Your task to perform on an android device: Show the shopping cart on newegg. Add "bose quietcomfort 35" to the cart on newegg Image 0: 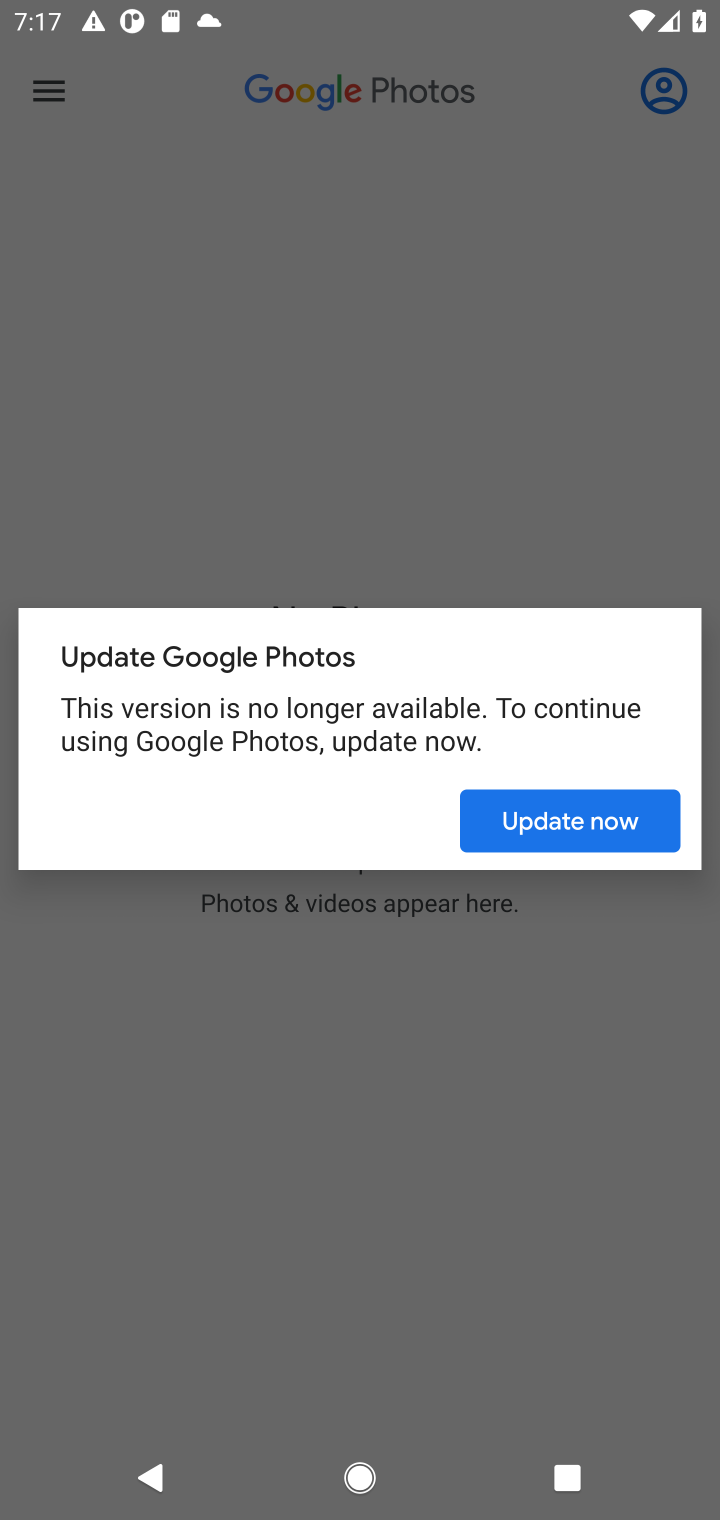
Step 0: press home button
Your task to perform on an android device: Show the shopping cart on newegg. Add "bose quietcomfort 35" to the cart on newegg Image 1: 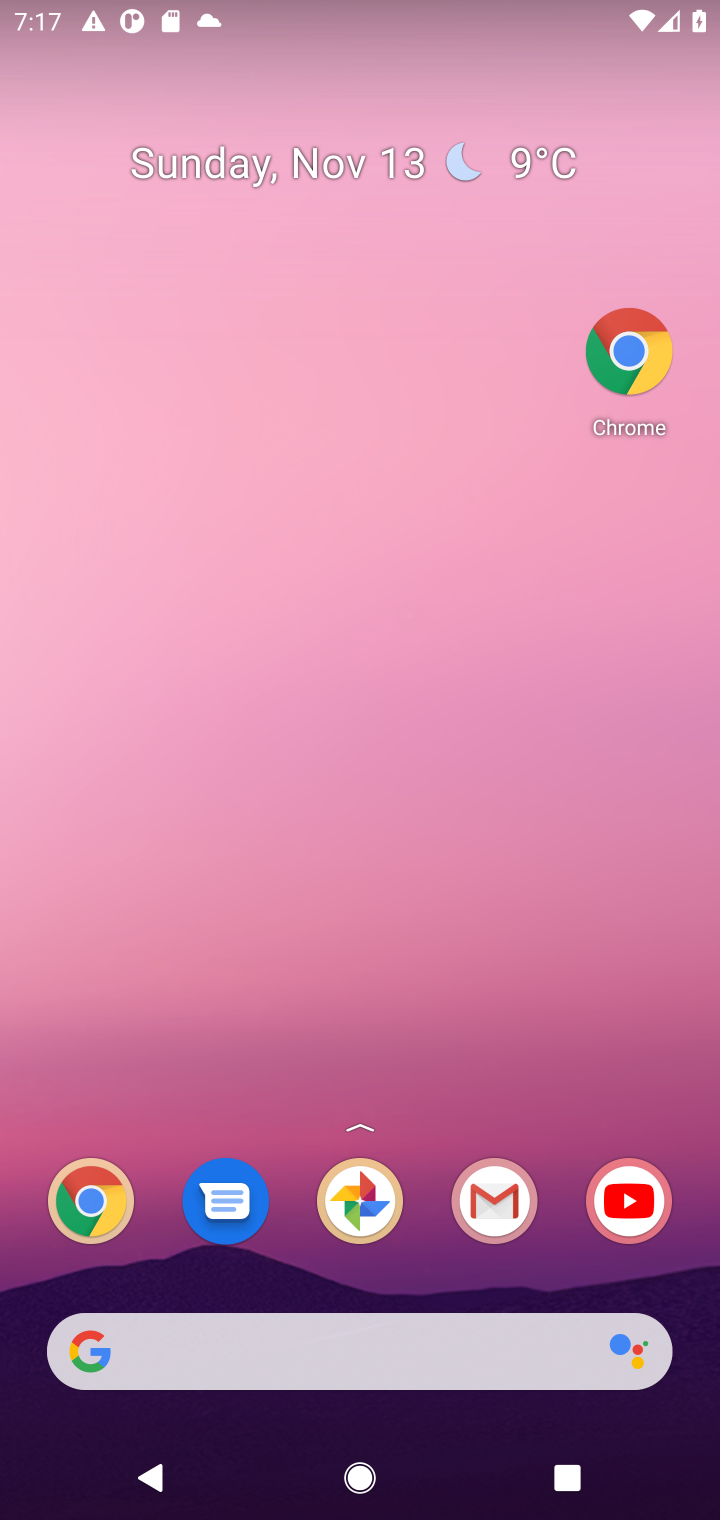
Step 1: drag from (458, 1312) to (287, 253)
Your task to perform on an android device: Show the shopping cart on newegg. Add "bose quietcomfort 35" to the cart on newegg Image 2: 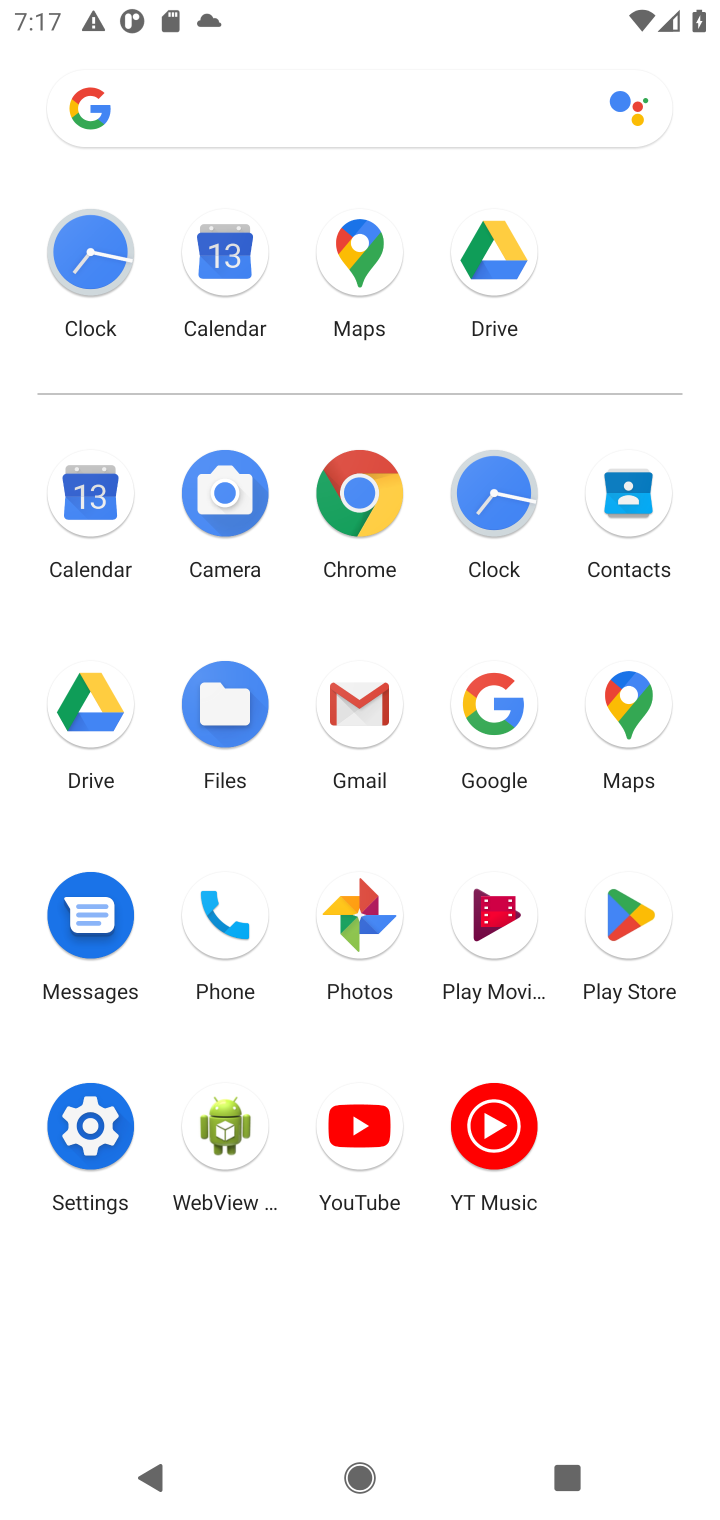
Step 2: click (363, 480)
Your task to perform on an android device: Show the shopping cart on newegg. Add "bose quietcomfort 35" to the cart on newegg Image 3: 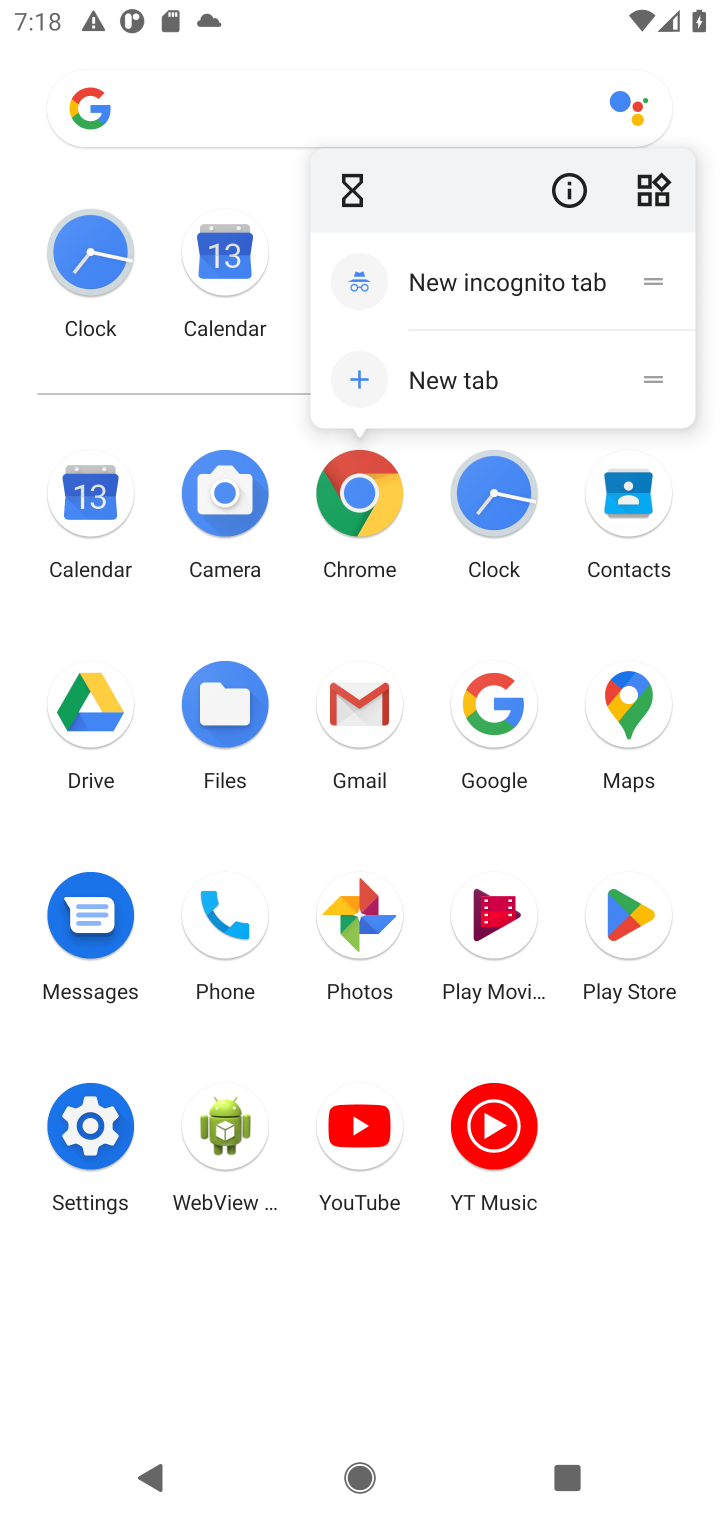
Step 3: click (377, 494)
Your task to perform on an android device: Show the shopping cart on newegg. Add "bose quietcomfort 35" to the cart on newegg Image 4: 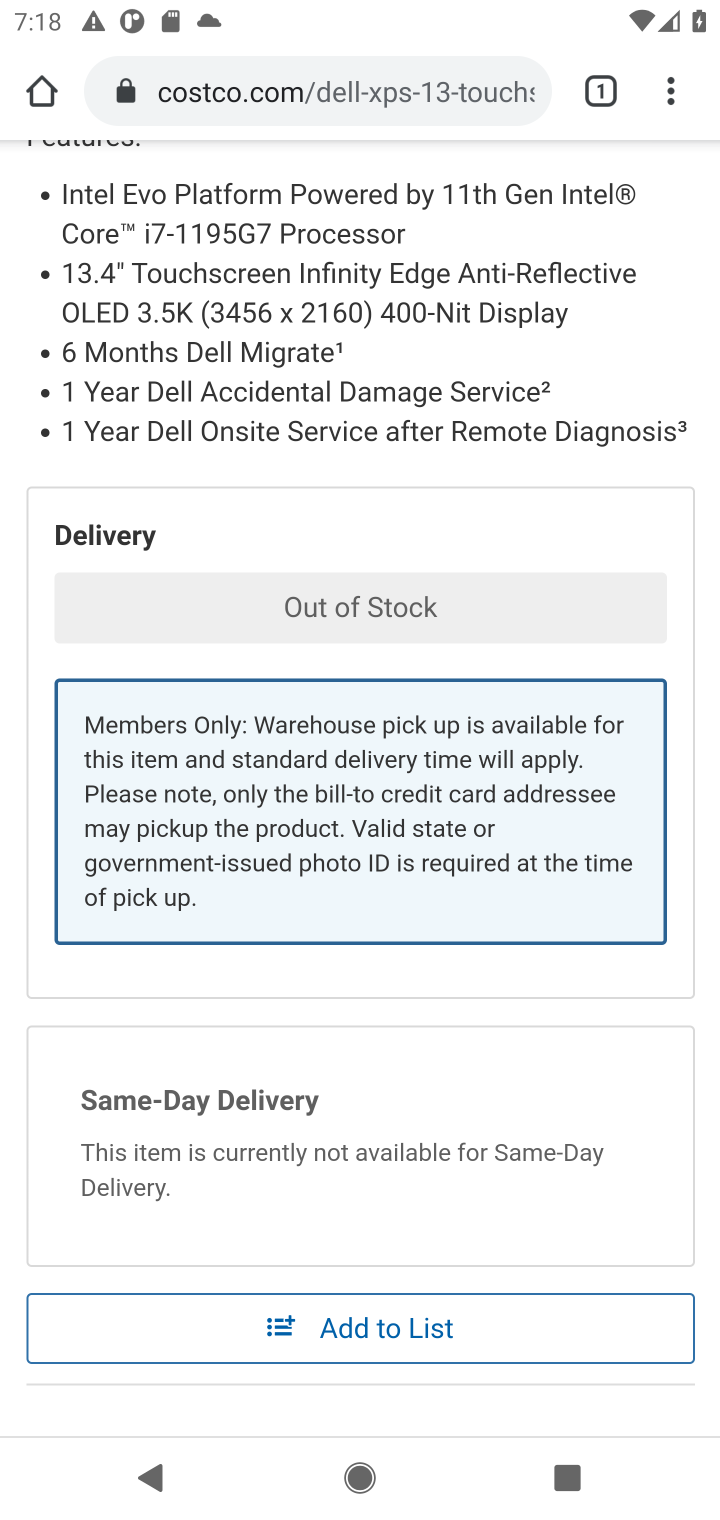
Step 4: click (411, 98)
Your task to perform on an android device: Show the shopping cart on newegg. Add "bose quietcomfort 35" to the cart on newegg Image 5: 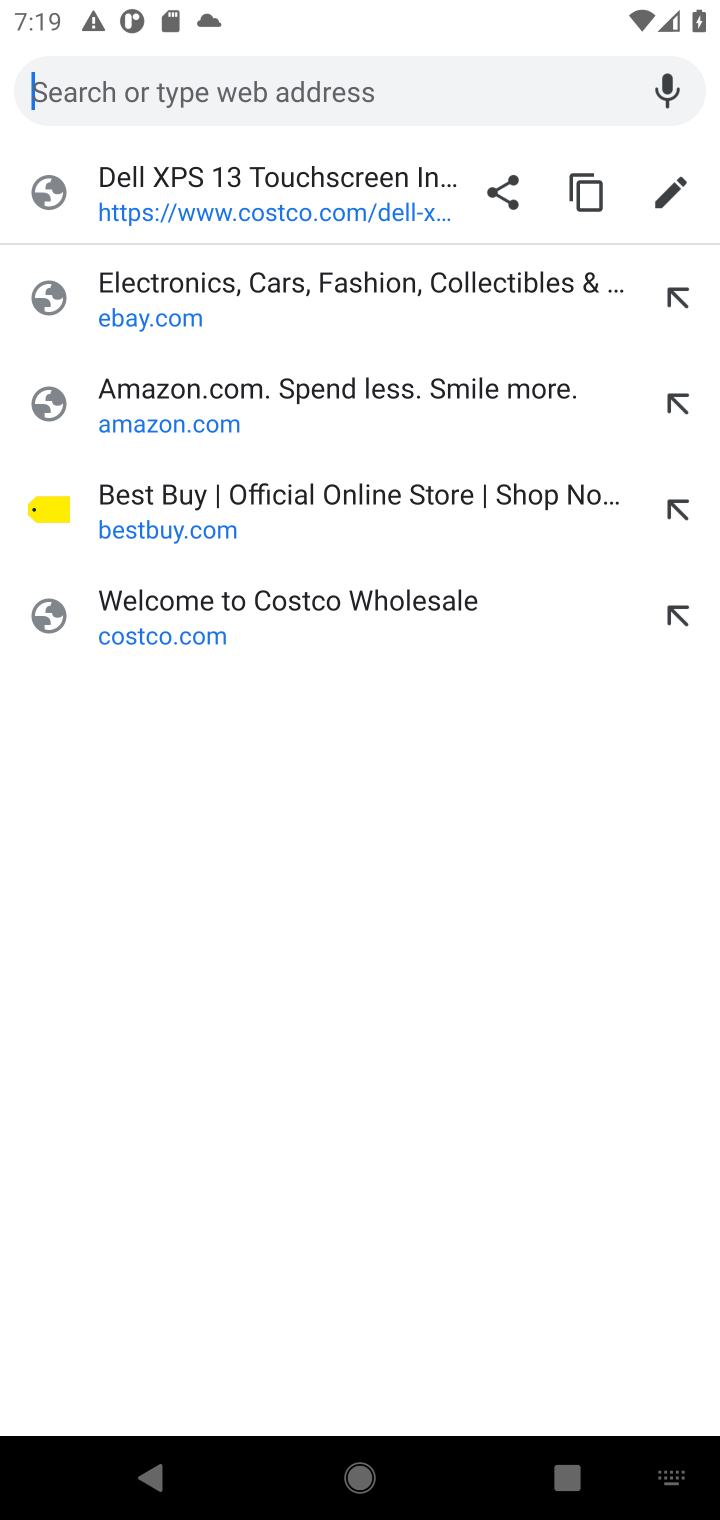
Step 5: type "newegg.com"
Your task to perform on an android device: Show the shopping cart on newegg. Add "bose quietcomfort 35" to the cart on newegg Image 6: 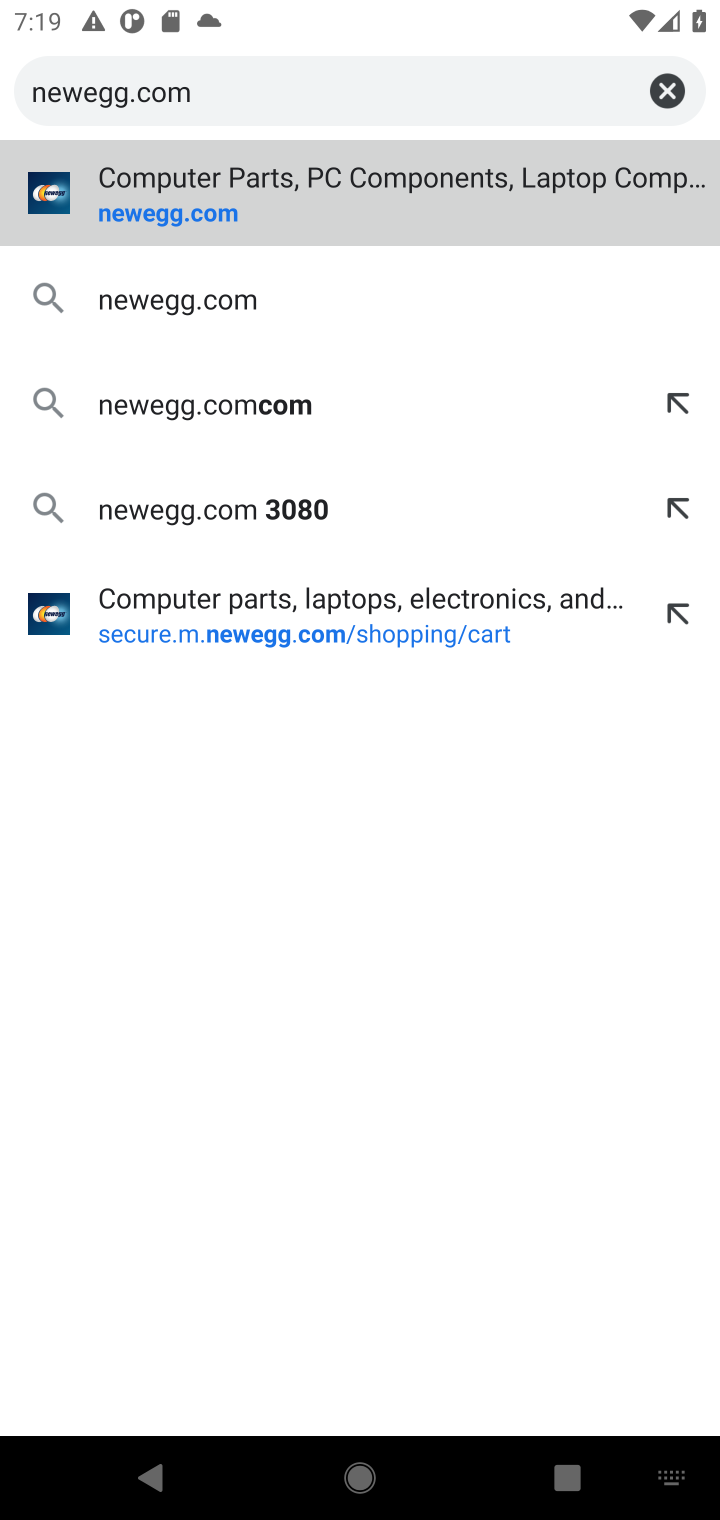
Step 6: press enter
Your task to perform on an android device: Show the shopping cart on newegg. Add "bose quietcomfort 35" to the cart on newegg Image 7: 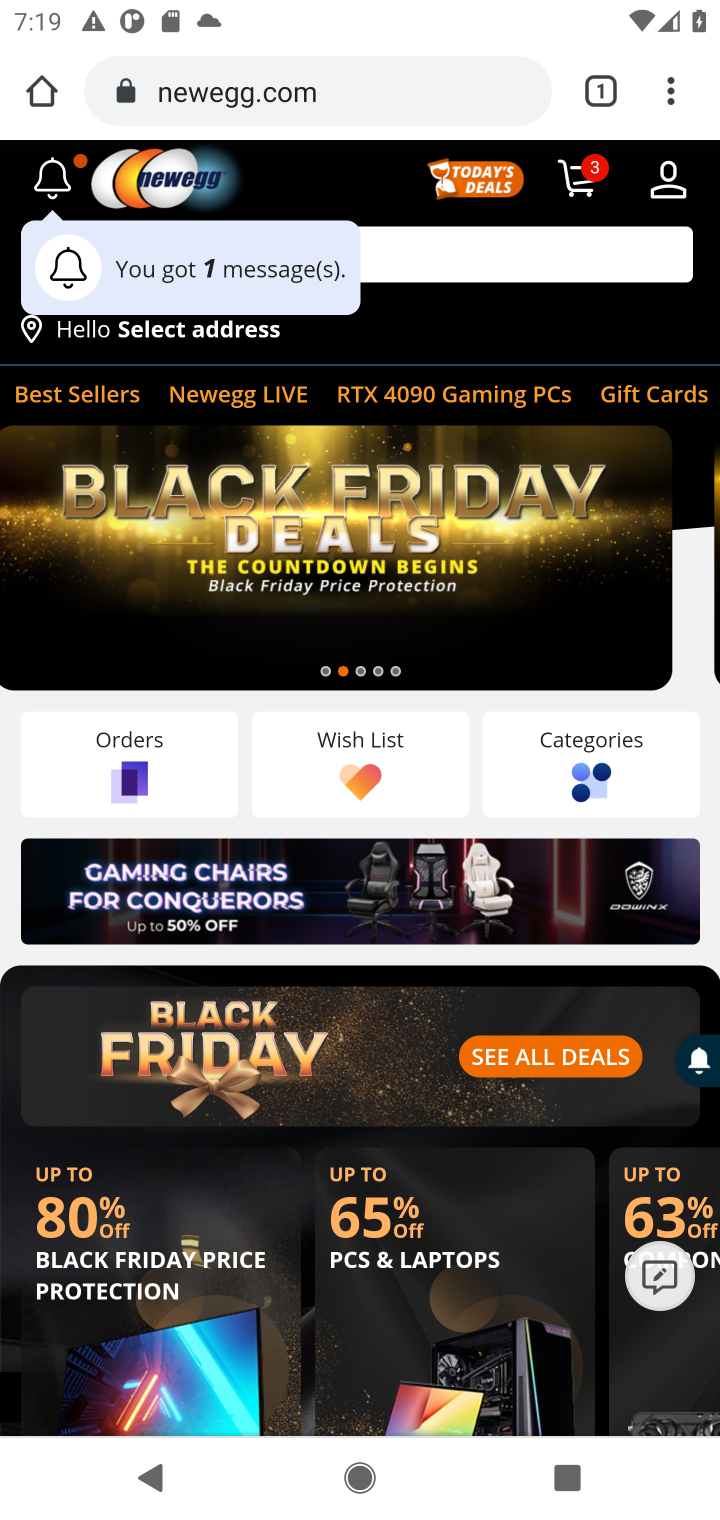
Step 7: click (590, 190)
Your task to perform on an android device: Show the shopping cart on newegg. Add "bose quietcomfort 35" to the cart on newegg Image 8: 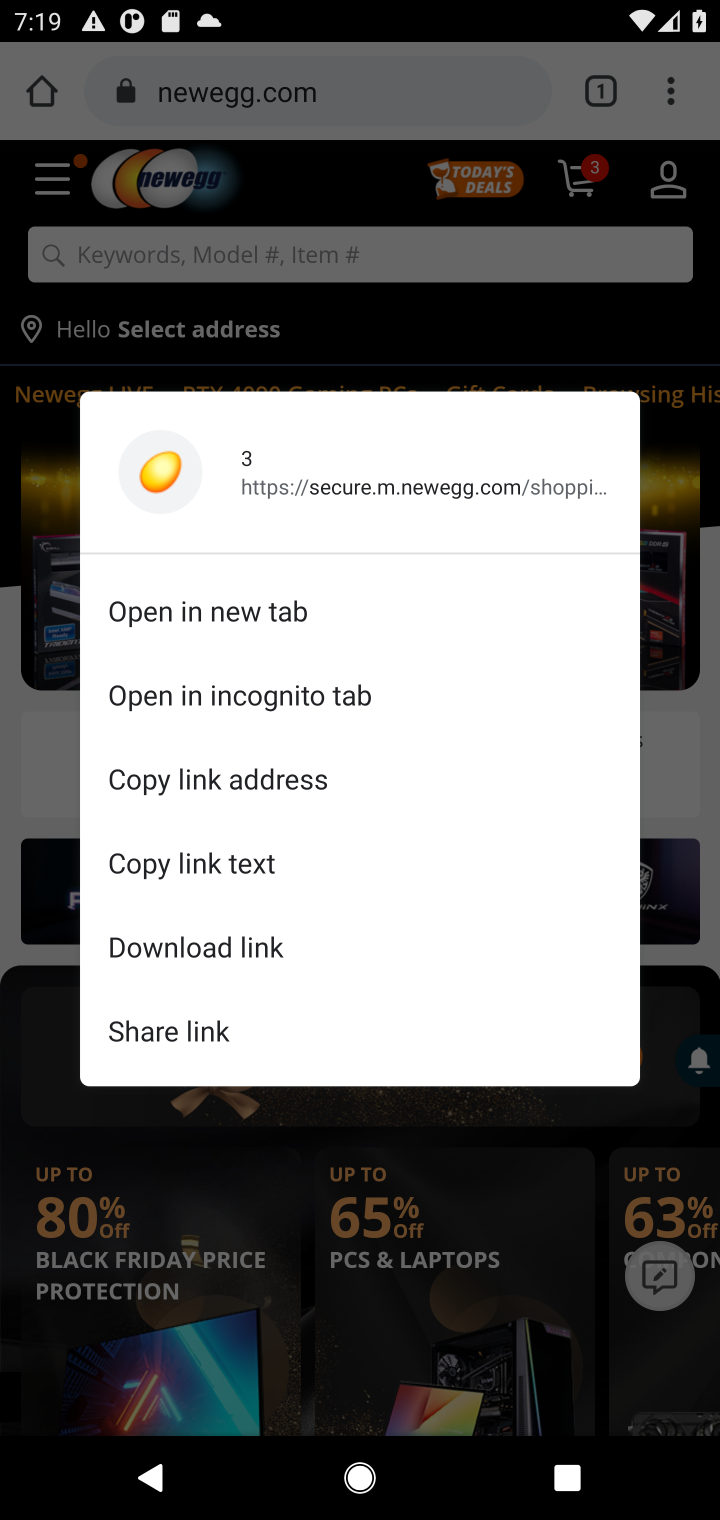
Step 8: click (574, 176)
Your task to perform on an android device: Show the shopping cart on newegg. Add "bose quietcomfort 35" to the cart on newegg Image 9: 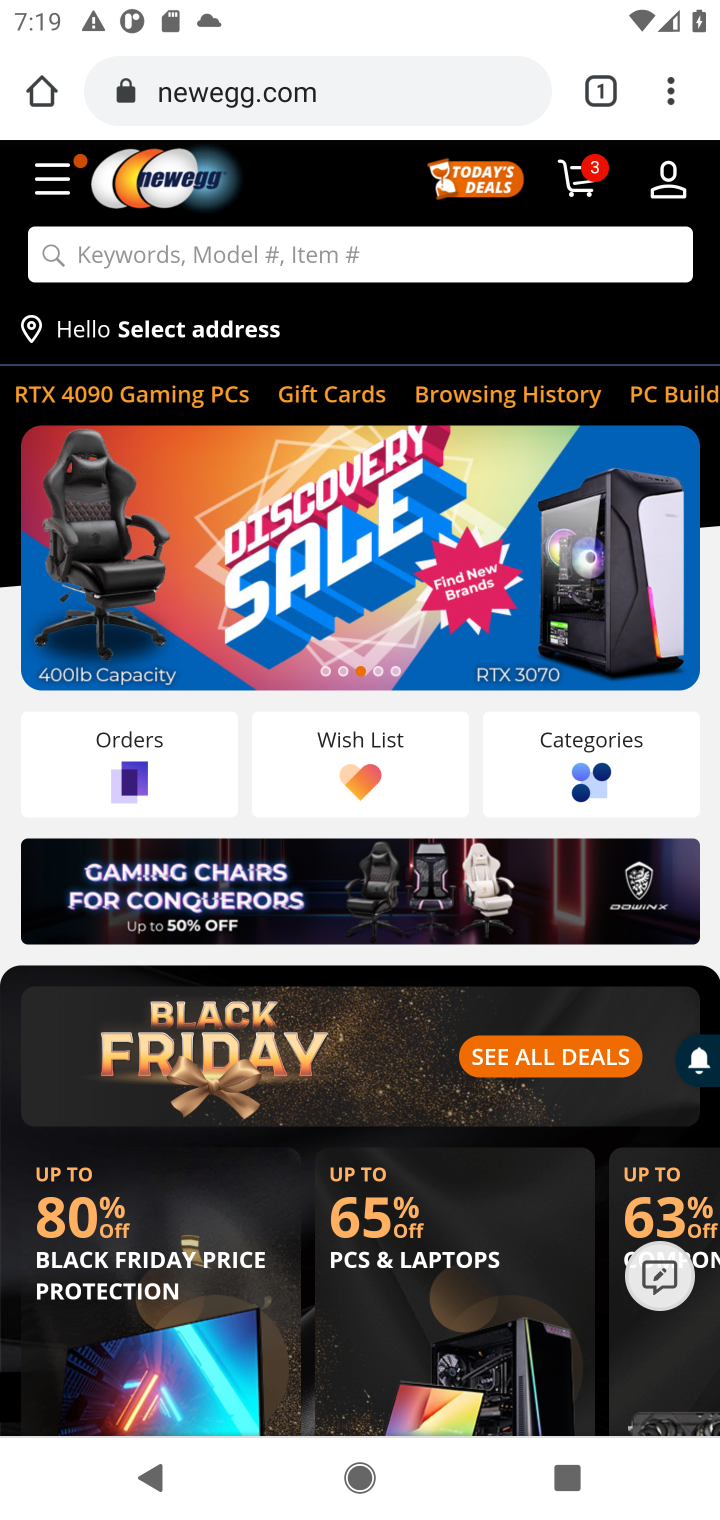
Step 9: click (571, 185)
Your task to perform on an android device: Show the shopping cart on newegg. Add "bose quietcomfort 35" to the cart on newegg Image 10: 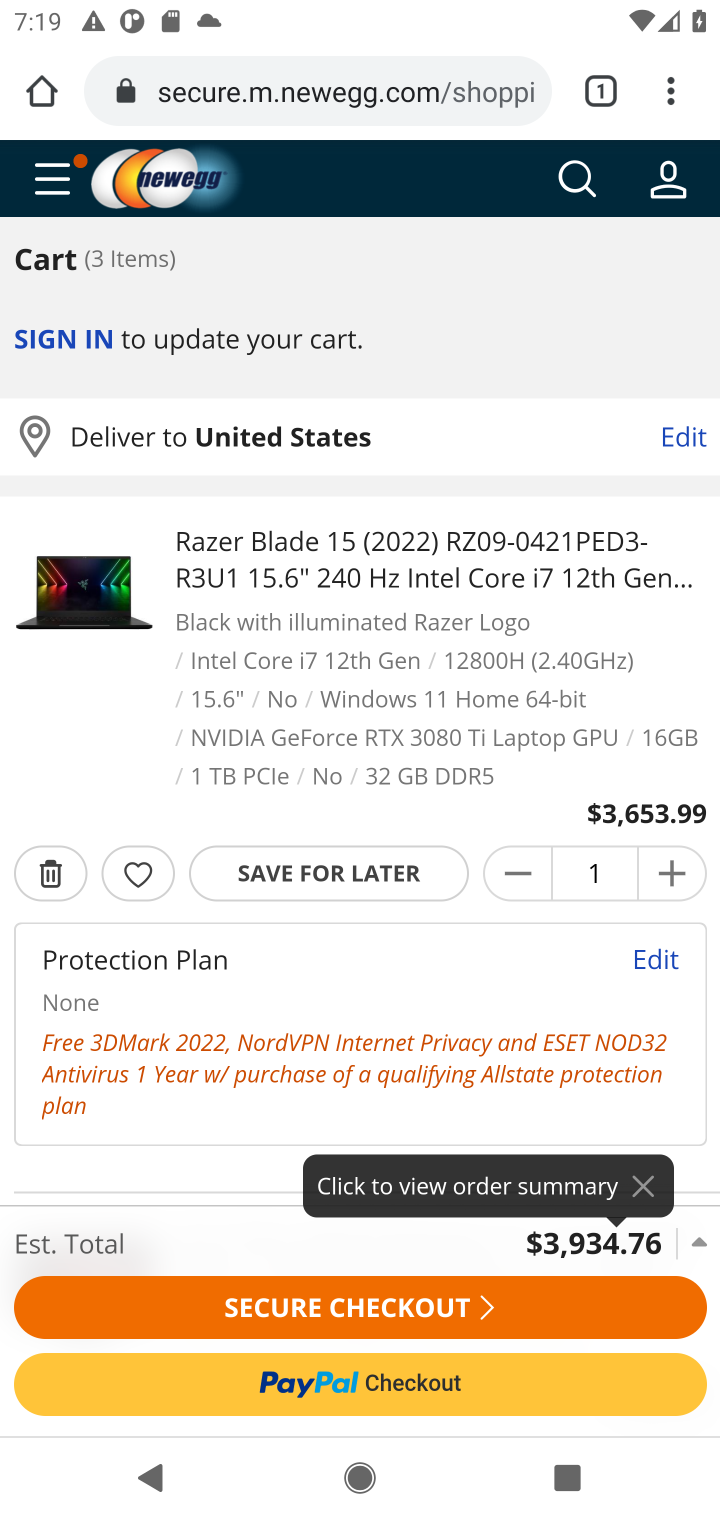
Step 10: click (581, 161)
Your task to perform on an android device: Show the shopping cart on newegg. Add "bose quietcomfort 35" to the cart on newegg Image 11: 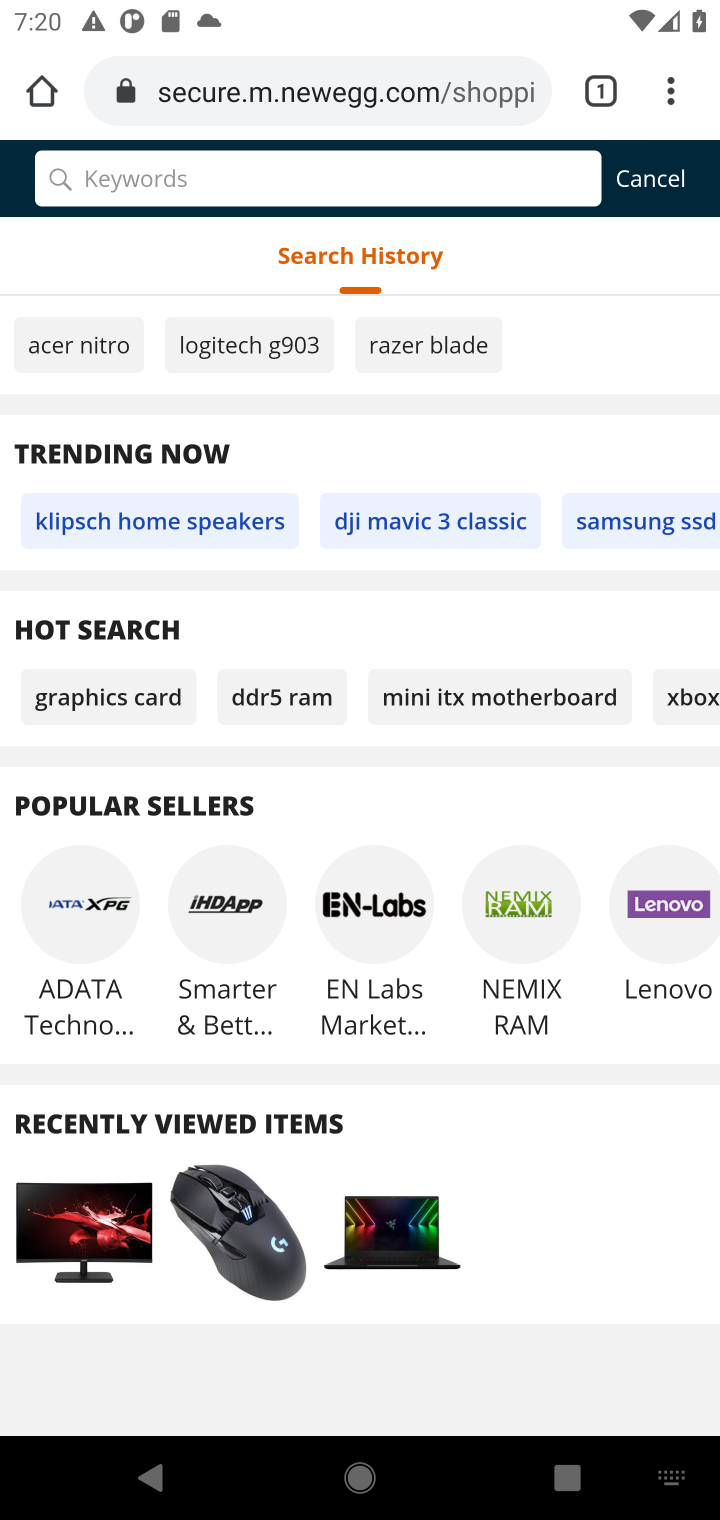
Step 11: type "bose quietcomfort 35"
Your task to perform on an android device: Show the shopping cart on newegg. Add "bose quietcomfort 35" to the cart on newegg Image 12: 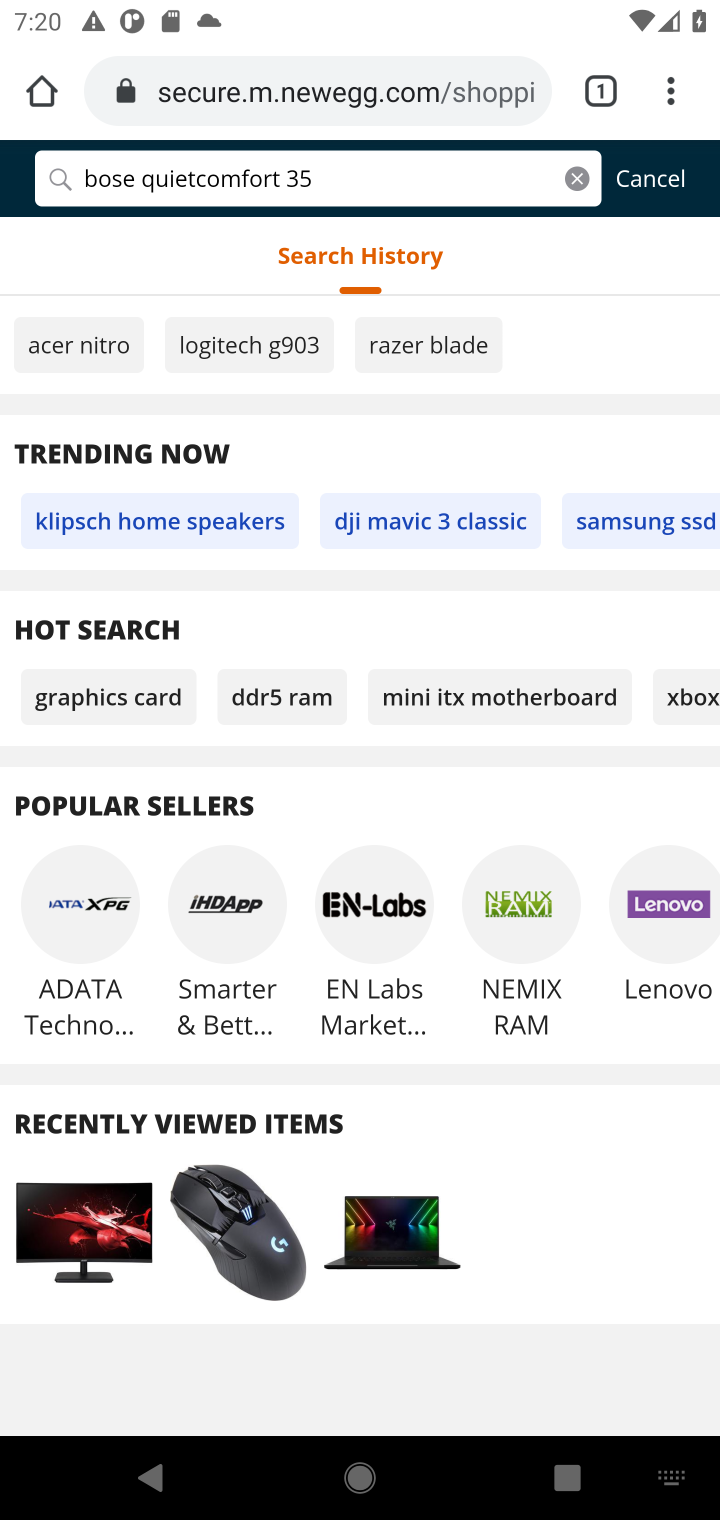
Step 12: press enter
Your task to perform on an android device: Show the shopping cart on newegg. Add "bose quietcomfort 35" to the cart on newegg Image 13: 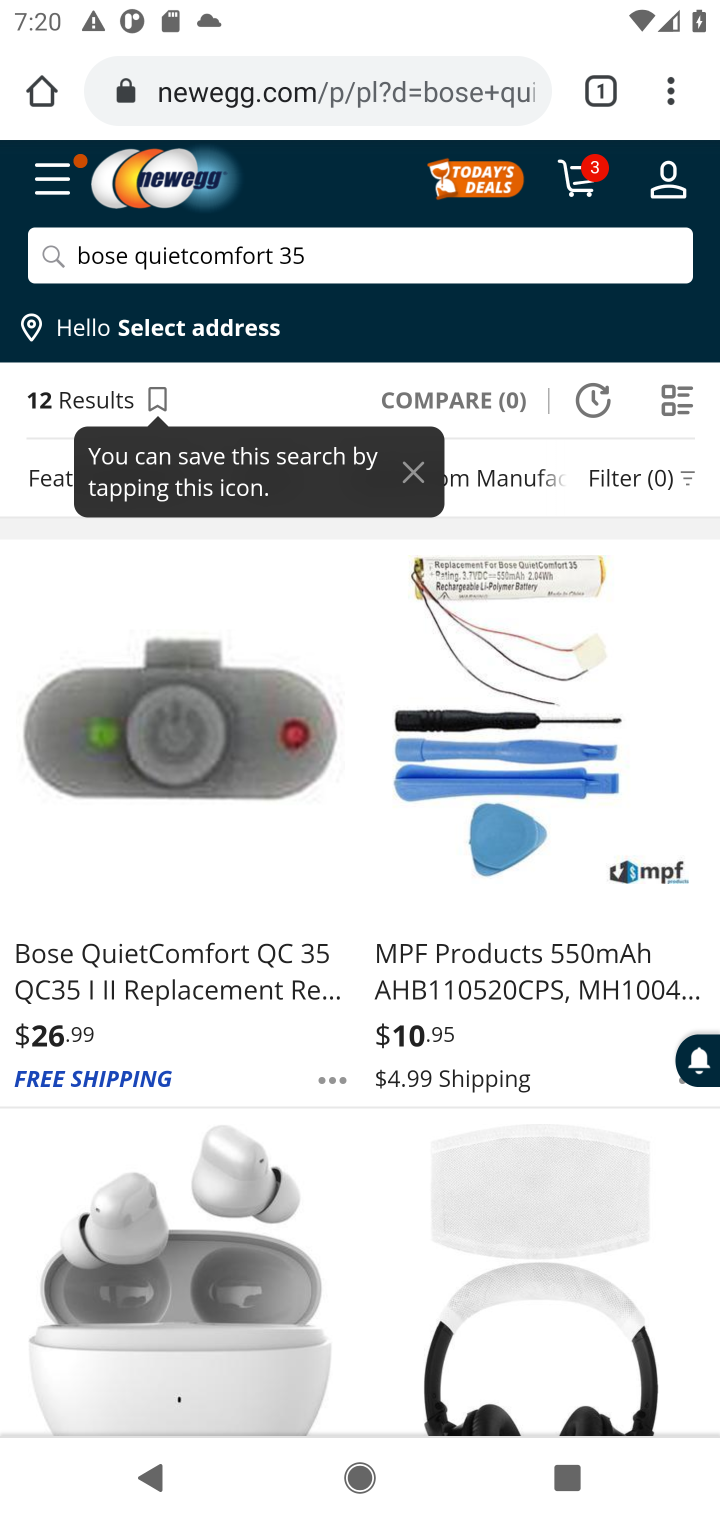
Step 13: drag from (339, 1082) to (377, 780)
Your task to perform on an android device: Show the shopping cart on newegg. Add "bose quietcomfort 35" to the cart on newegg Image 14: 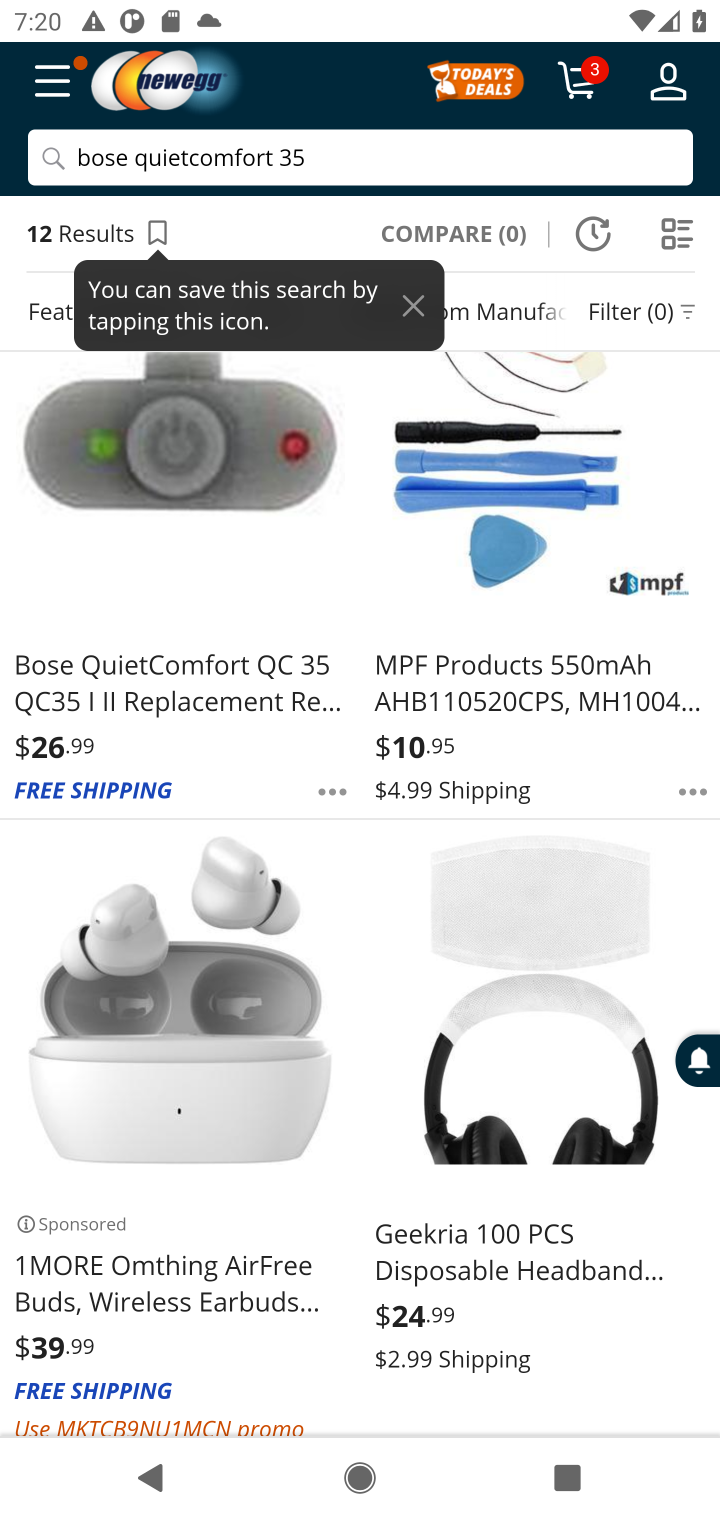
Step 14: drag from (417, 907) to (220, 1051)
Your task to perform on an android device: Show the shopping cart on newegg. Add "bose quietcomfort 35" to the cart on newegg Image 15: 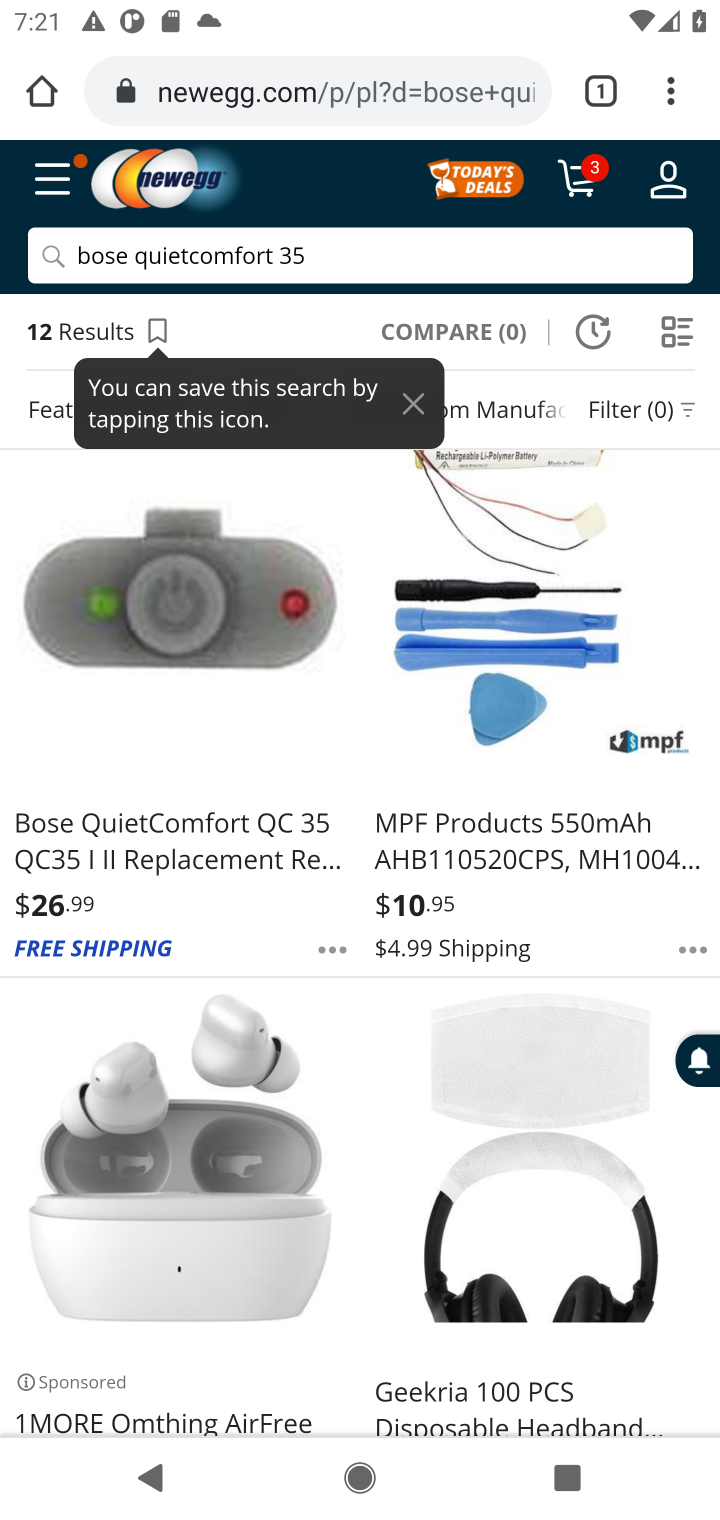
Step 15: click (229, 858)
Your task to perform on an android device: Show the shopping cart on newegg. Add "bose quietcomfort 35" to the cart on newegg Image 16: 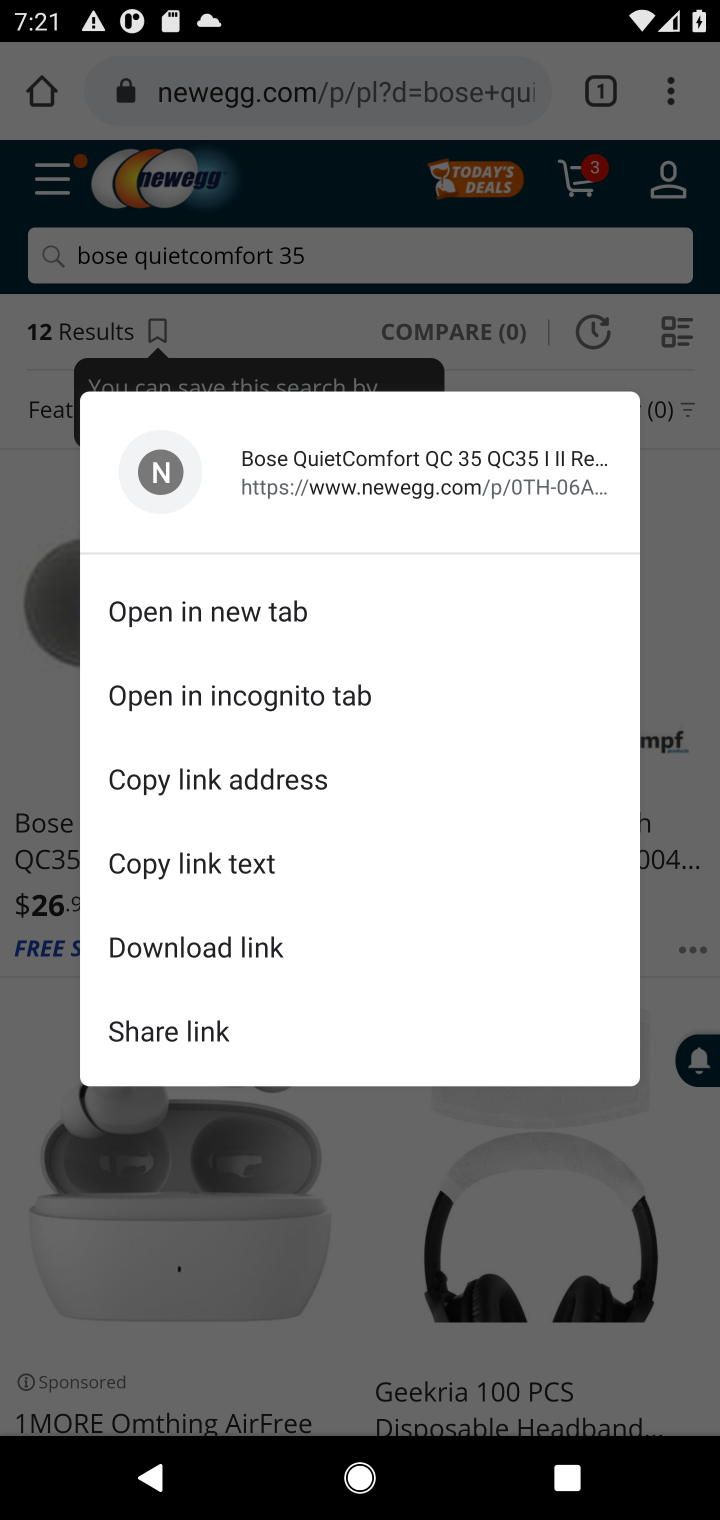
Step 16: click (244, 350)
Your task to perform on an android device: Show the shopping cart on newegg. Add "bose quietcomfort 35" to the cart on newegg Image 17: 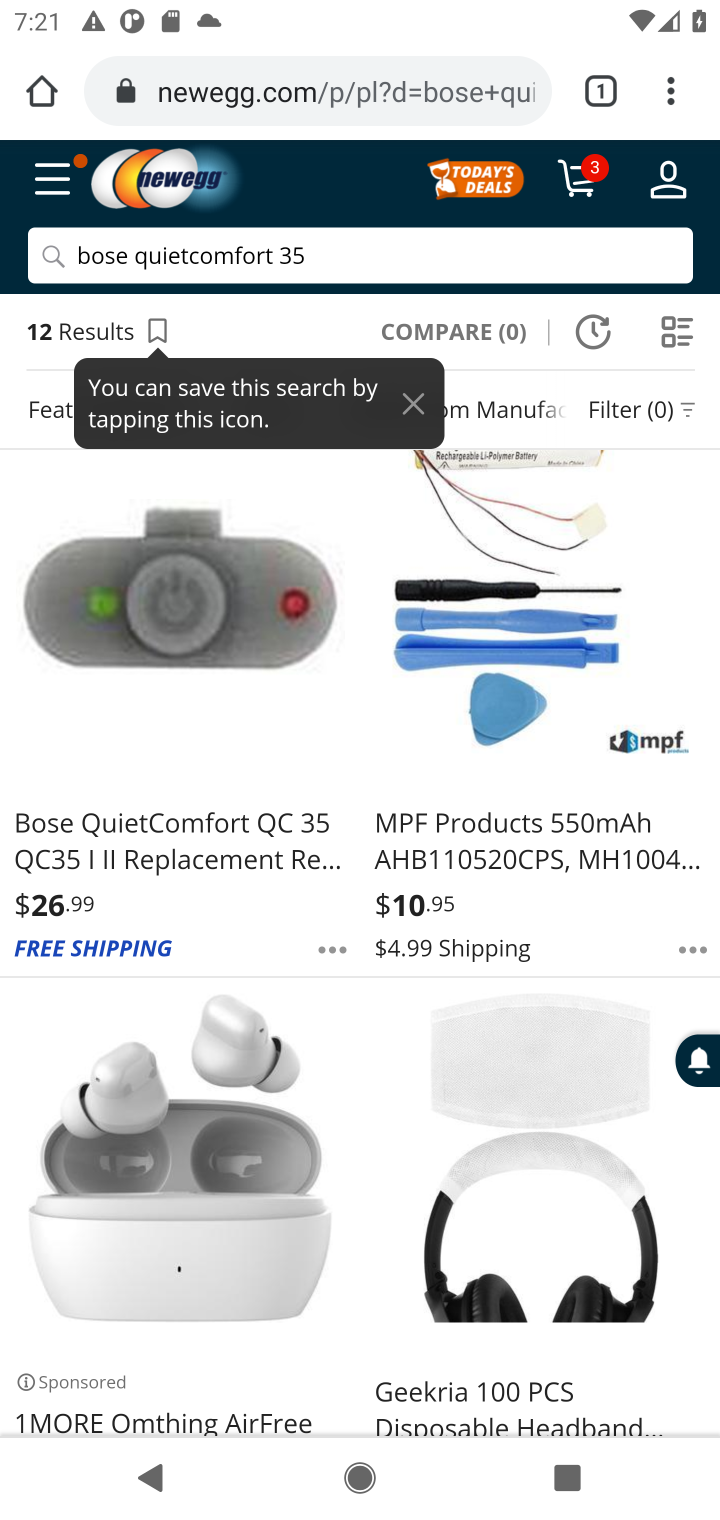
Step 17: click (195, 837)
Your task to perform on an android device: Show the shopping cart on newegg. Add "bose quietcomfort 35" to the cart on newegg Image 18: 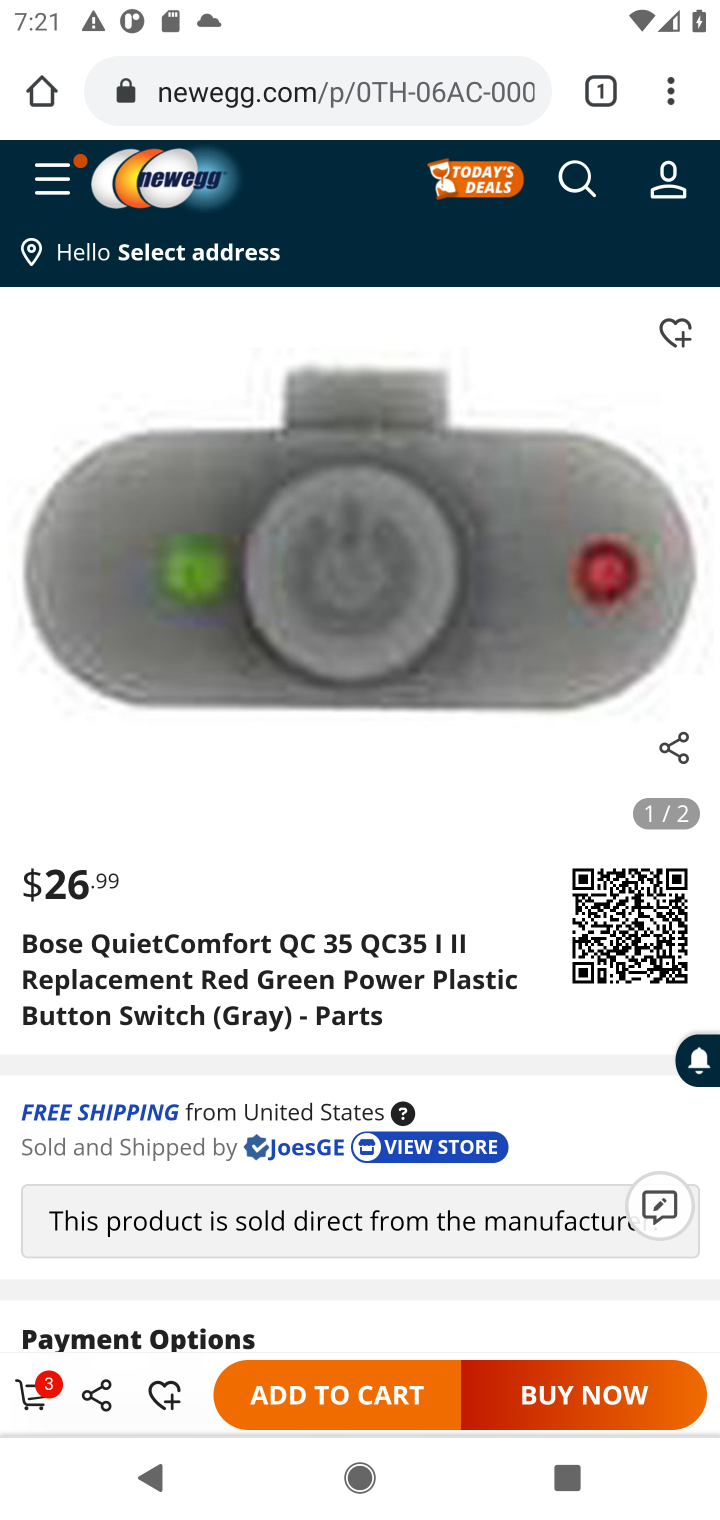
Step 18: click (368, 1407)
Your task to perform on an android device: Show the shopping cart on newegg. Add "bose quietcomfort 35" to the cart on newegg Image 19: 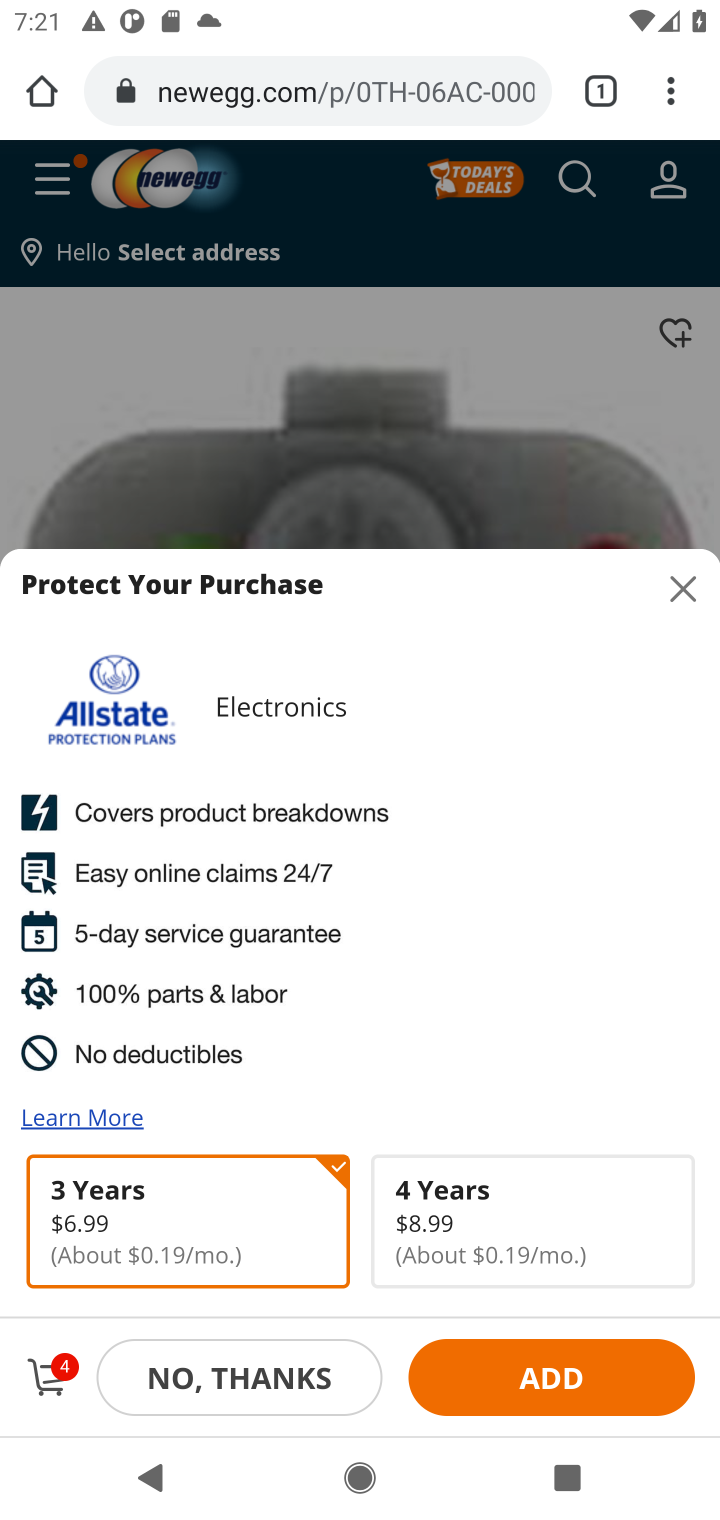
Step 19: task complete